Your task to perform on an android device: turn vacation reply on in the gmail app Image 0: 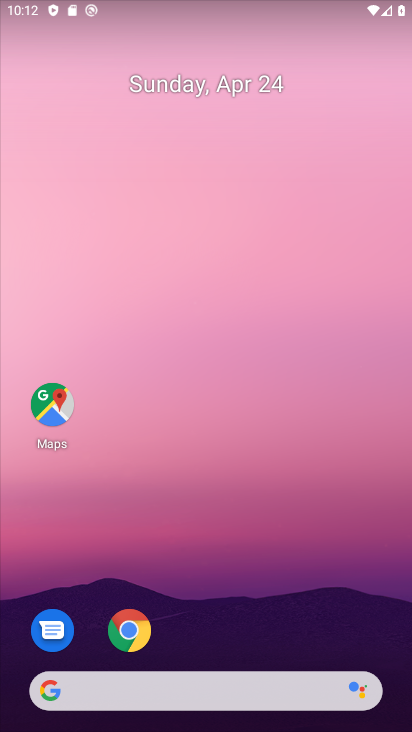
Step 0: drag from (206, 627) to (249, 127)
Your task to perform on an android device: turn vacation reply on in the gmail app Image 1: 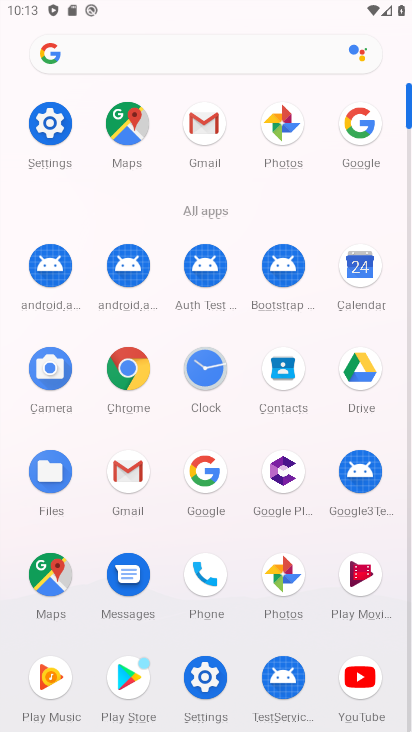
Step 1: click (208, 130)
Your task to perform on an android device: turn vacation reply on in the gmail app Image 2: 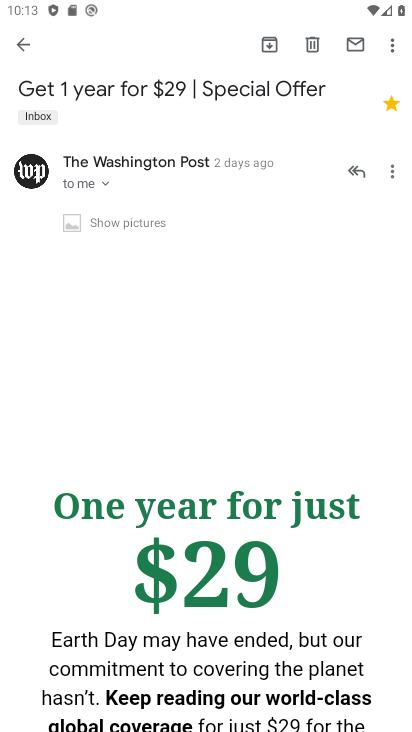
Step 2: click (390, 48)
Your task to perform on an android device: turn vacation reply on in the gmail app Image 3: 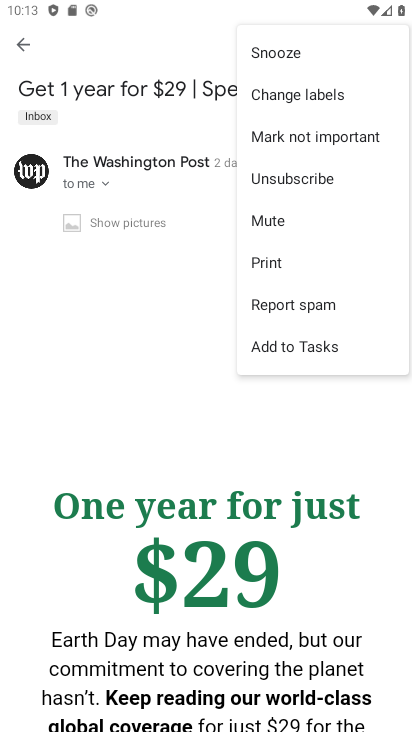
Step 3: click (123, 329)
Your task to perform on an android device: turn vacation reply on in the gmail app Image 4: 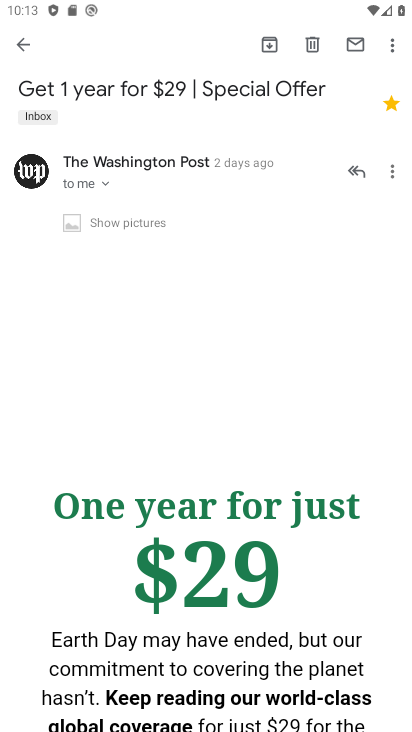
Step 4: click (30, 48)
Your task to perform on an android device: turn vacation reply on in the gmail app Image 5: 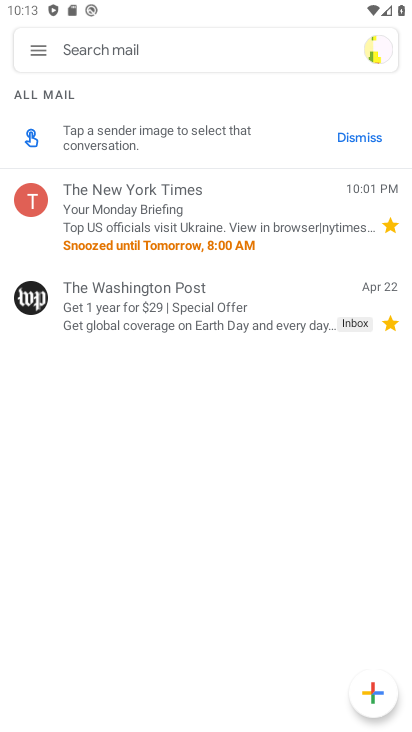
Step 5: click (30, 48)
Your task to perform on an android device: turn vacation reply on in the gmail app Image 6: 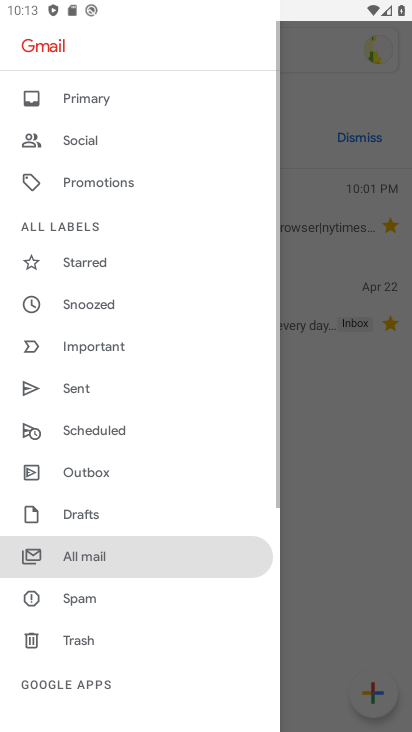
Step 6: drag from (130, 648) to (183, 304)
Your task to perform on an android device: turn vacation reply on in the gmail app Image 7: 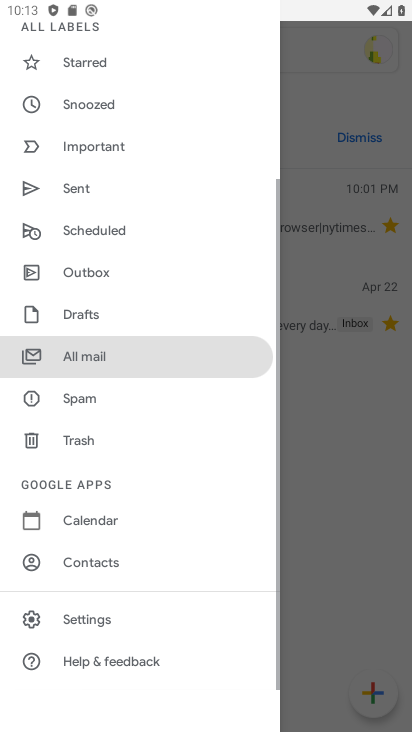
Step 7: click (66, 602)
Your task to perform on an android device: turn vacation reply on in the gmail app Image 8: 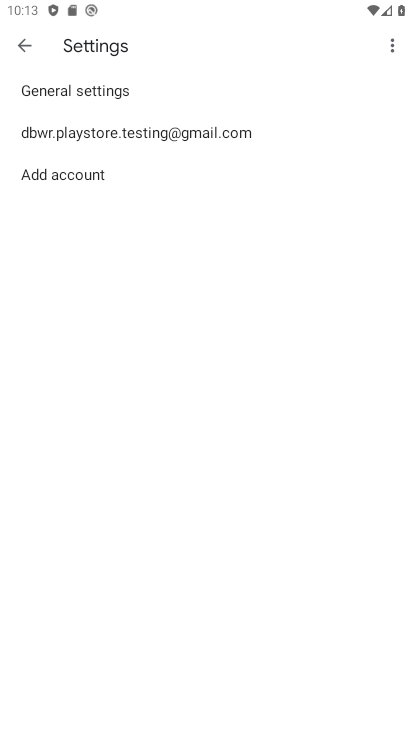
Step 8: click (164, 141)
Your task to perform on an android device: turn vacation reply on in the gmail app Image 9: 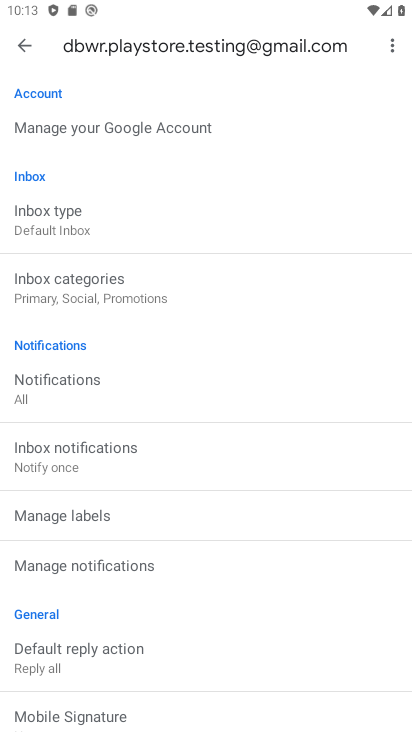
Step 9: drag from (152, 648) to (237, 316)
Your task to perform on an android device: turn vacation reply on in the gmail app Image 10: 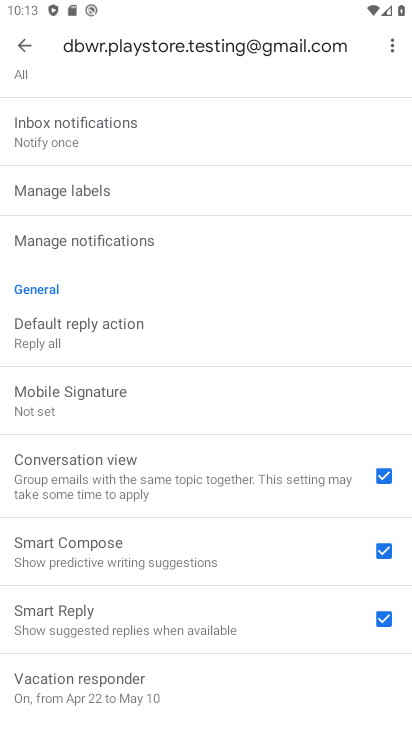
Step 10: click (174, 686)
Your task to perform on an android device: turn vacation reply on in the gmail app Image 11: 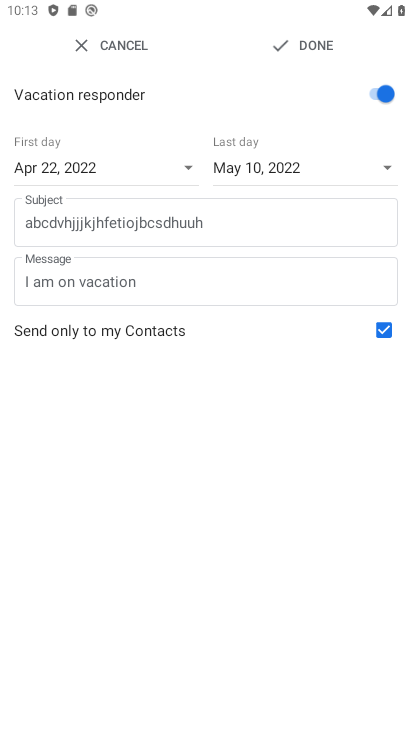
Step 11: task complete